Your task to perform on an android device: Open the web browser Image 0: 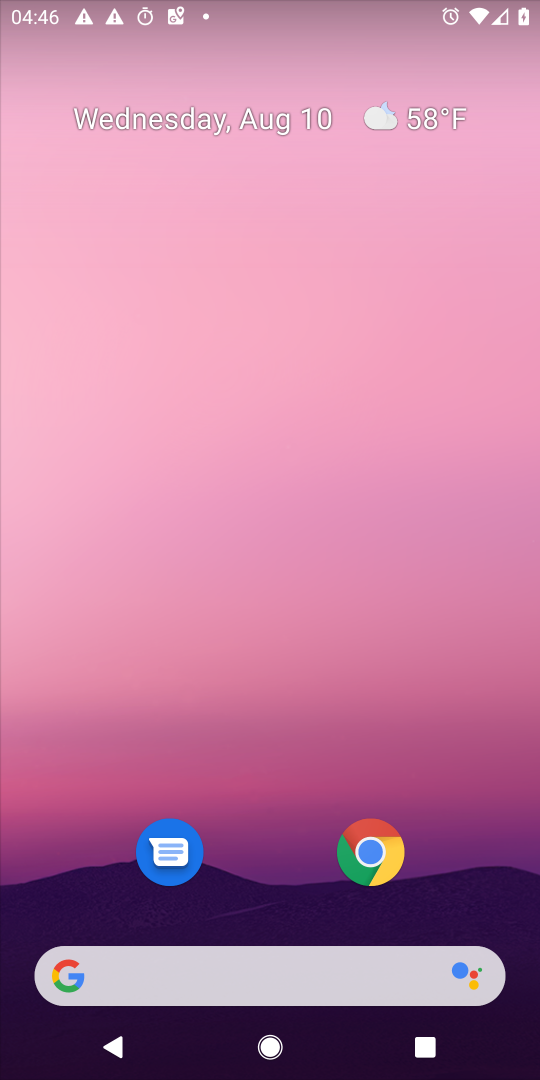
Step 0: drag from (292, 906) to (233, 220)
Your task to perform on an android device: Open the web browser Image 1: 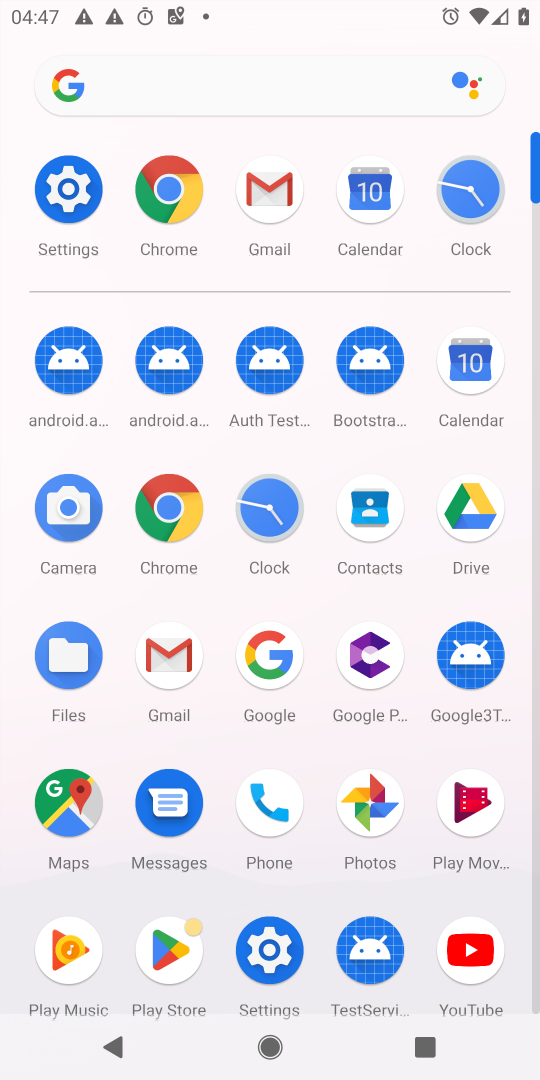
Step 1: click (173, 495)
Your task to perform on an android device: Open the web browser Image 2: 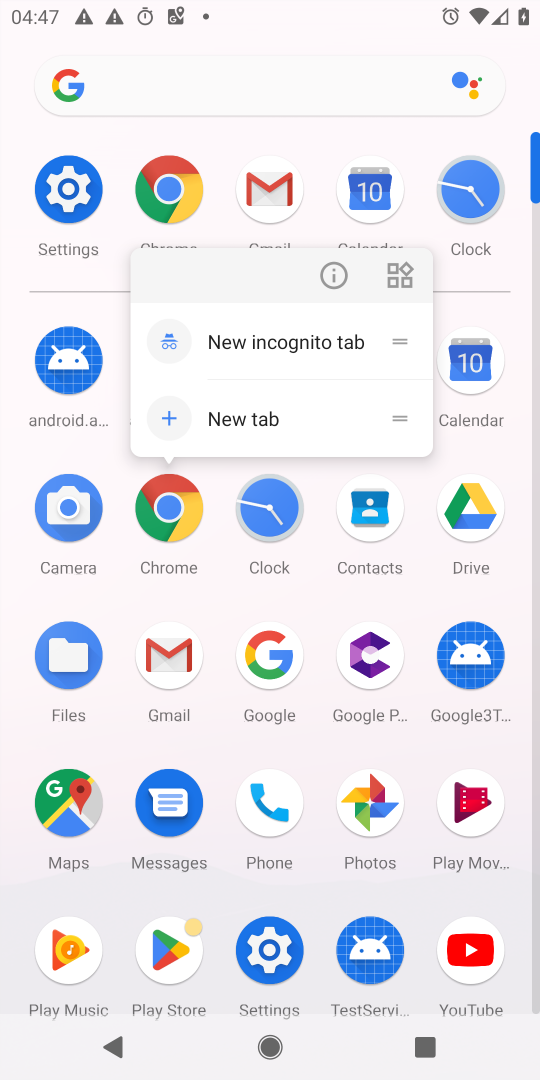
Step 2: click (173, 495)
Your task to perform on an android device: Open the web browser Image 3: 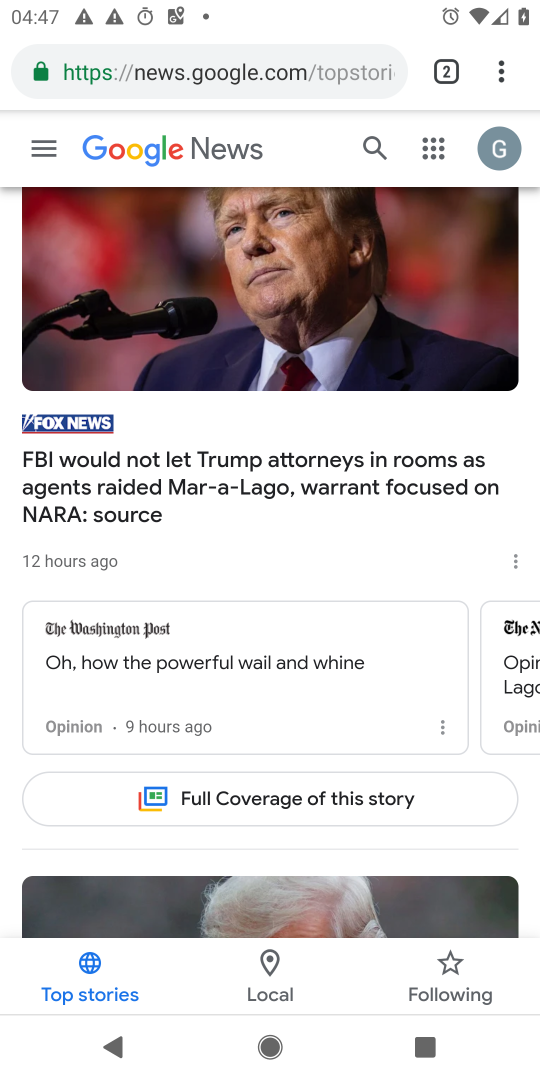
Step 3: task complete